Your task to perform on an android device: see creations saved in the google photos Image 0: 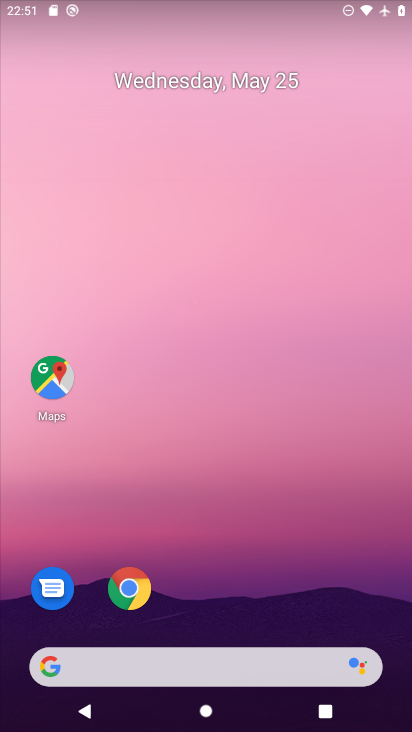
Step 0: drag from (280, 540) to (331, 115)
Your task to perform on an android device: see creations saved in the google photos Image 1: 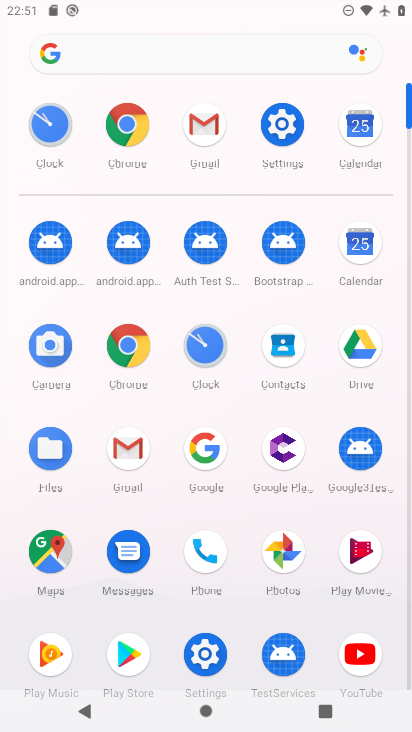
Step 1: click (276, 538)
Your task to perform on an android device: see creations saved in the google photos Image 2: 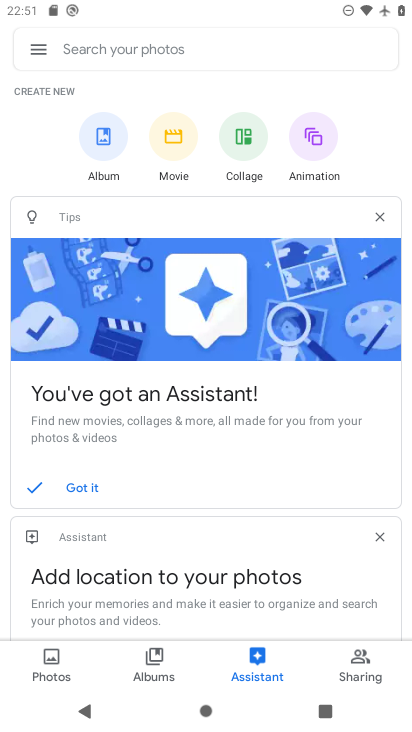
Step 2: click (42, 662)
Your task to perform on an android device: see creations saved in the google photos Image 3: 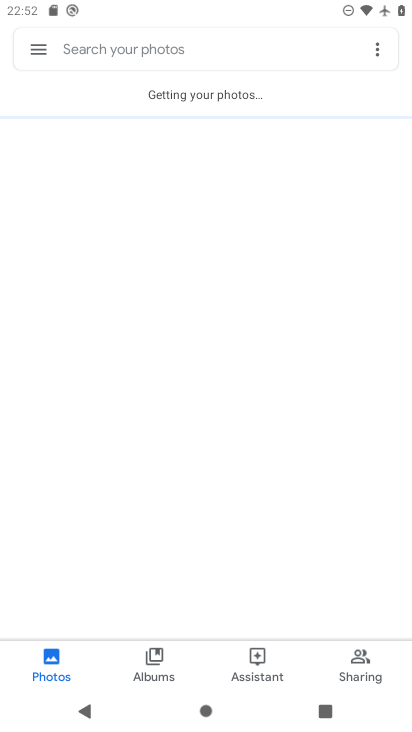
Step 3: task complete